Your task to perform on an android device: Go to Android settings Image 0: 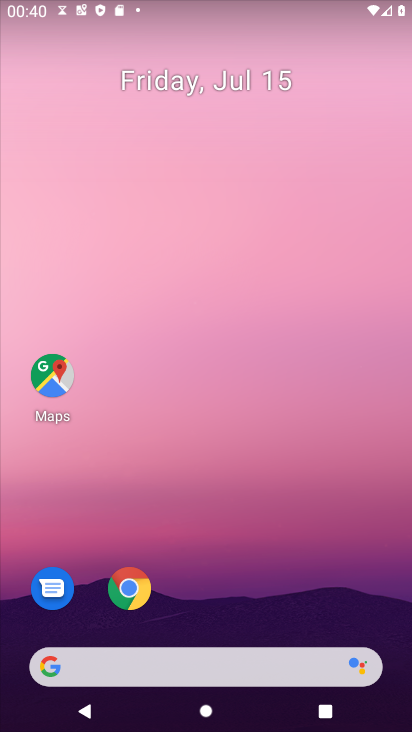
Step 0: drag from (185, 624) to (287, 13)
Your task to perform on an android device: Go to Android settings Image 1: 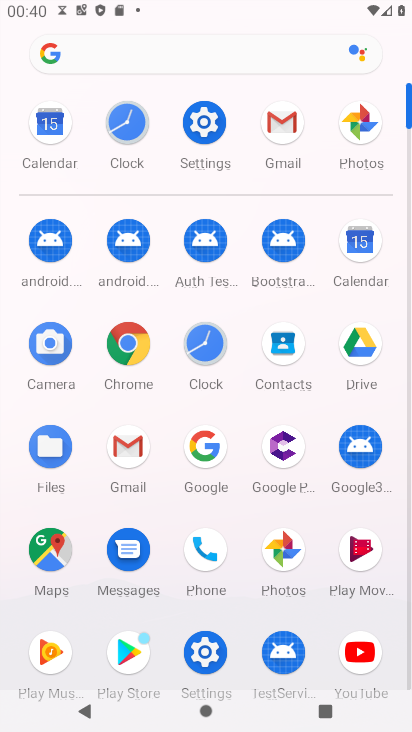
Step 1: click (196, 120)
Your task to perform on an android device: Go to Android settings Image 2: 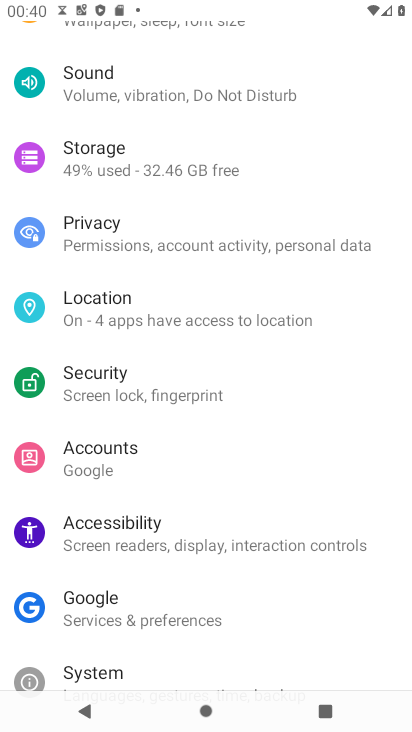
Step 2: drag from (156, 686) to (320, 18)
Your task to perform on an android device: Go to Android settings Image 3: 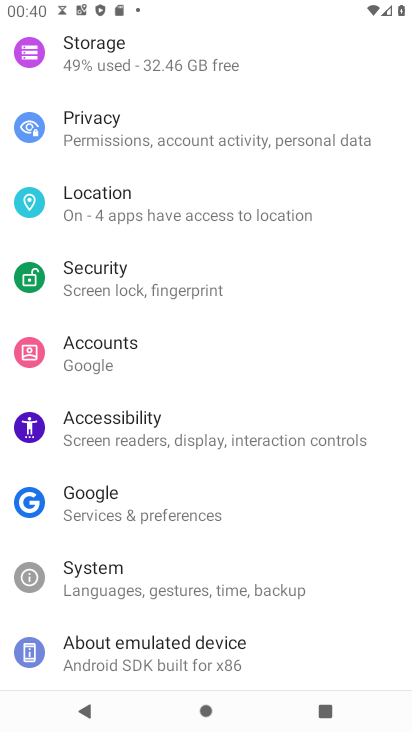
Step 3: click (123, 644)
Your task to perform on an android device: Go to Android settings Image 4: 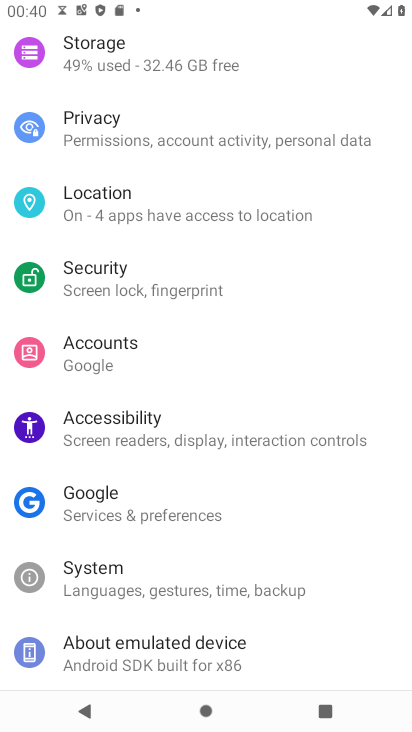
Step 4: click (133, 656)
Your task to perform on an android device: Go to Android settings Image 5: 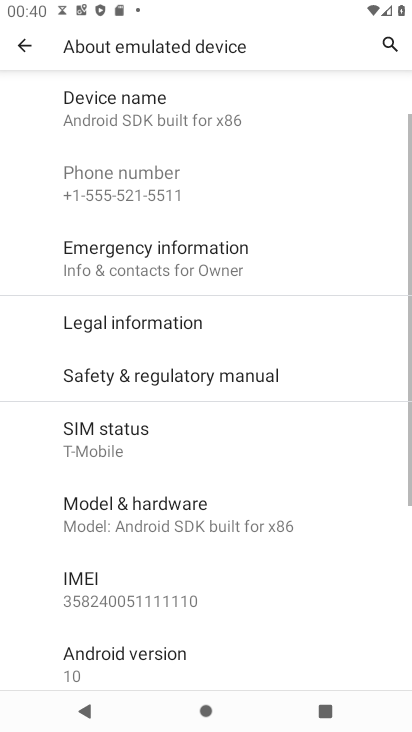
Step 5: click (134, 657)
Your task to perform on an android device: Go to Android settings Image 6: 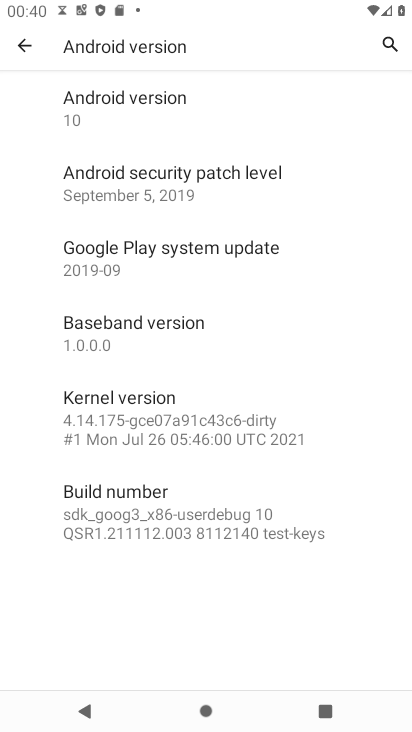
Step 6: task complete